Your task to perform on an android device: Search for pizza restaurants on Maps Image 0: 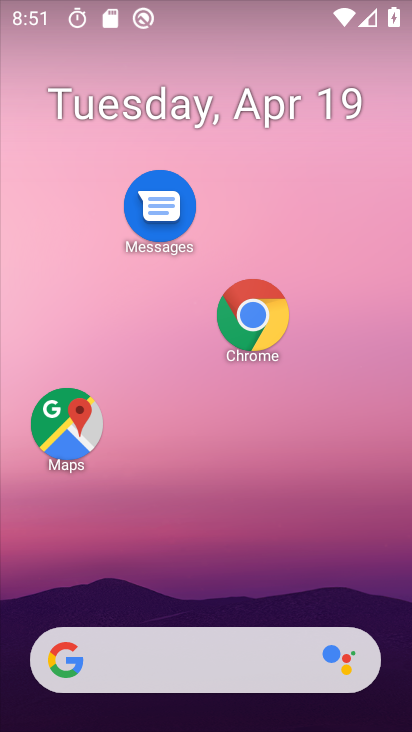
Step 0: click (64, 420)
Your task to perform on an android device: Search for pizza restaurants on Maps Image 1: 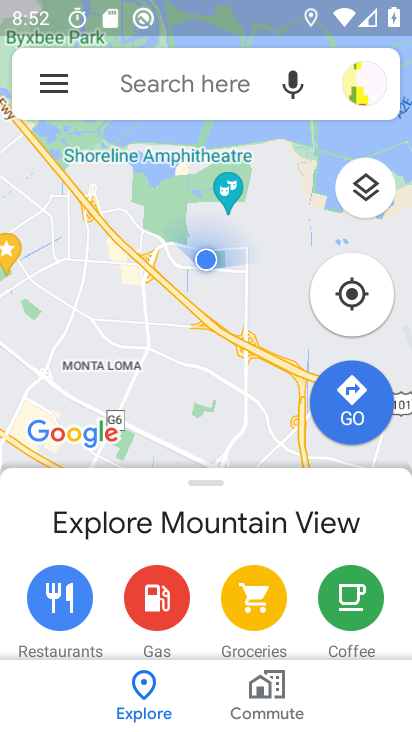
Step 1: click (186, 99)
Your task to perform on an android device: Search for pizza restaurants on Maps Image 2: 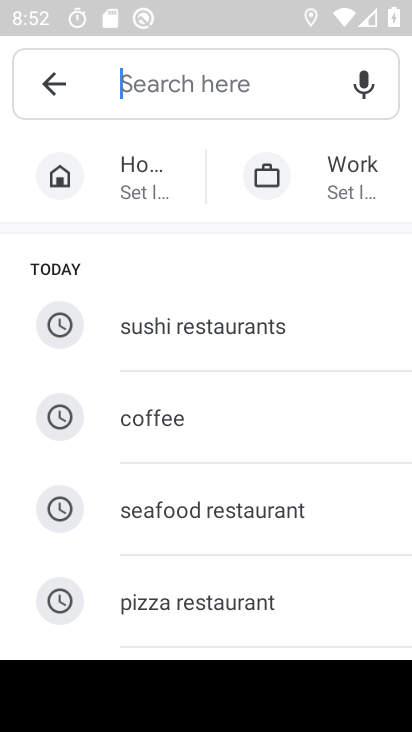
Step 2: click (314, 583)
Your task to perform on an android device: Search for pizza restaurants on Maps Image 3: 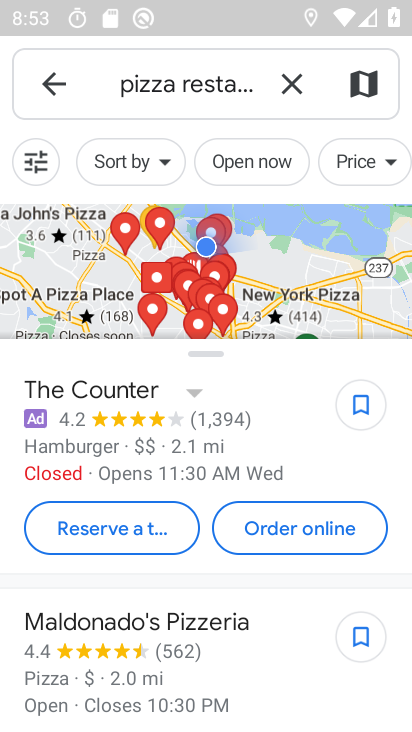
Step 3: task complete